Your task to perform on an android device: Go to Yahoo.com Image 0: 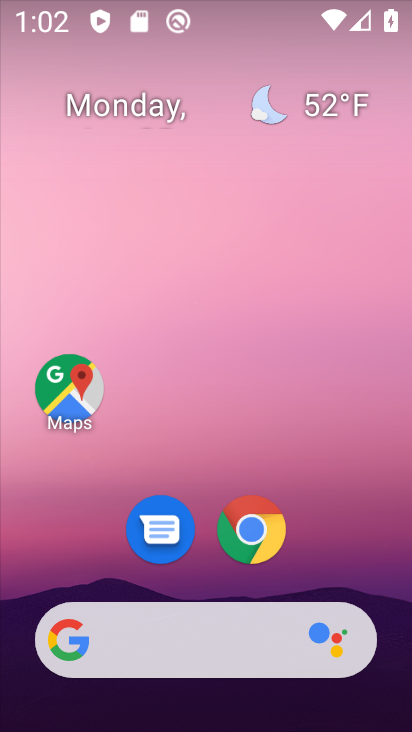
Step 0: click (251, 526)
Your task to perform on an android device: Go to Yahoo.com Image 1: 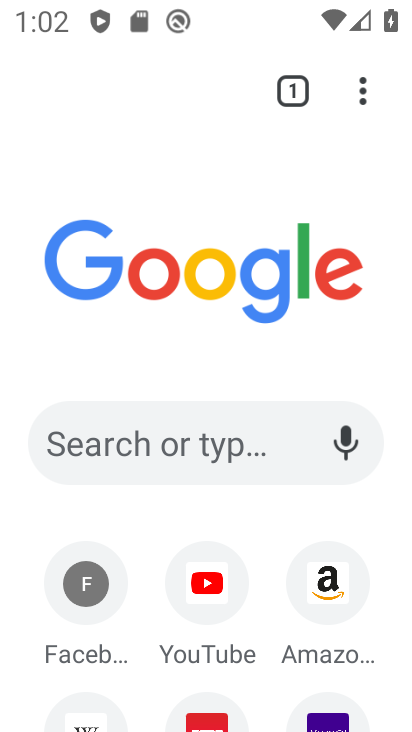
Step 1: click (152, 433)
Your task to perform on an android device: Go to Yahoo.com Image 2: 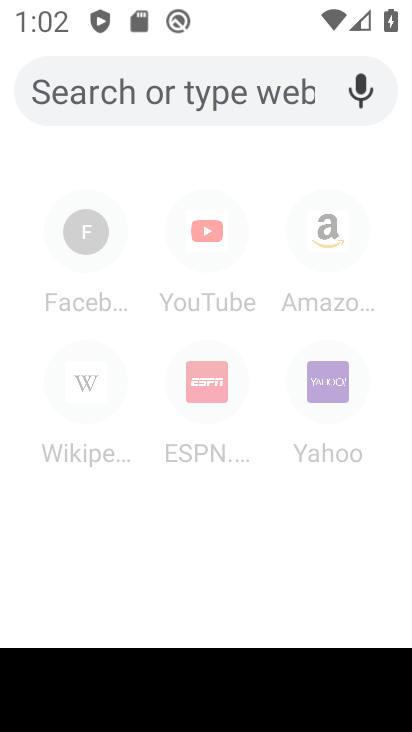
Step 2: type "Yahoo.com"
Your task to perform on an android device: Go to Yahoo.com Image 3: 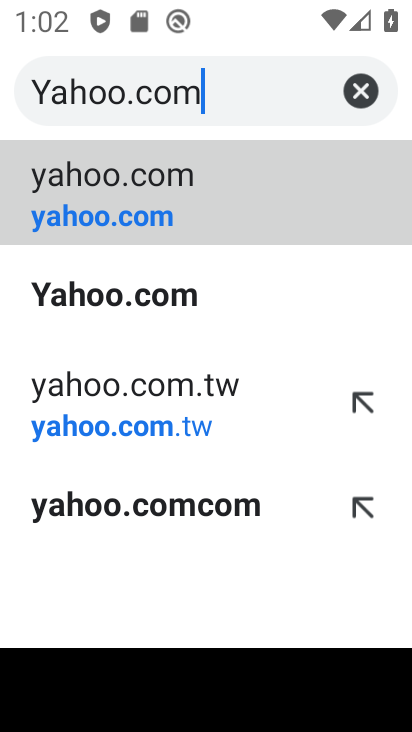
Step 3: click (130, 294)
Your task to perform on an android device: Go to Yahoo.com Image 4: 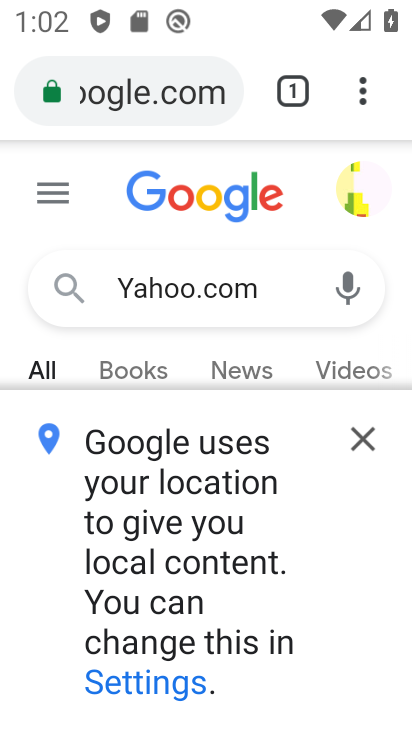
Step 4: click (354, 438)
Your task to perform on an android device: Go to Yahoo.com Image 5: 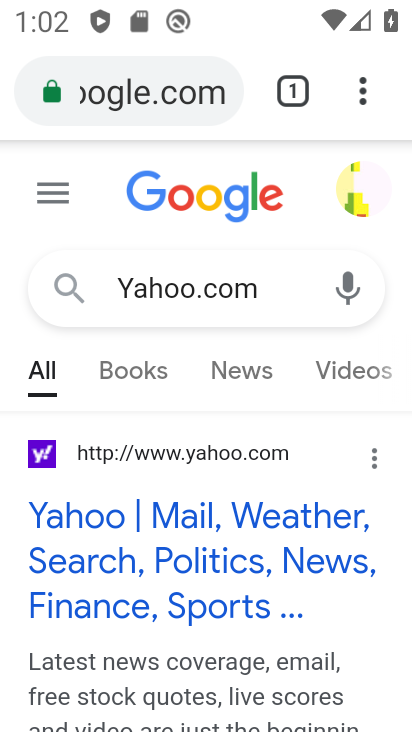
Step 5: task complete